Your task to perform on an android device: toggle wifi Image 0: 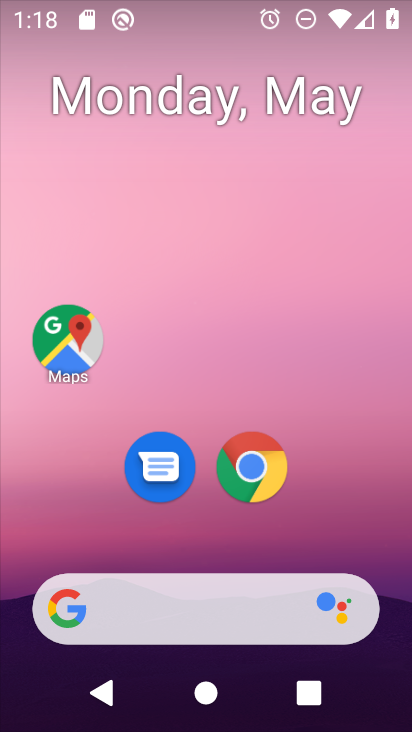
Step 0: drag from (375, 559) to (400, 3)
Your task to perform on an android device: toggle wifi Image 1: 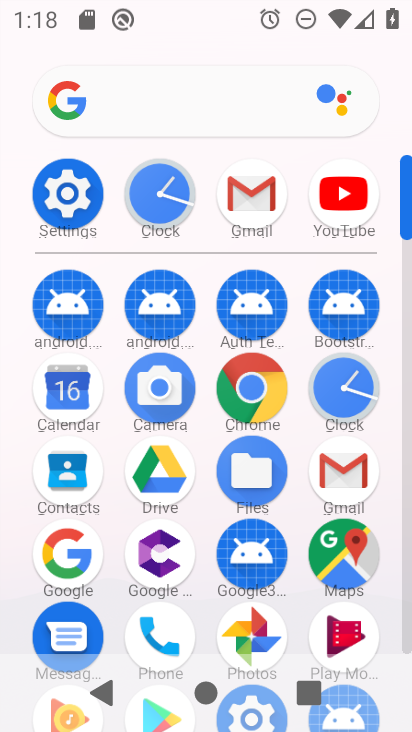
Step 1: click (60, 192)
Your task to perform on an android device: toggle wifi Image 2: 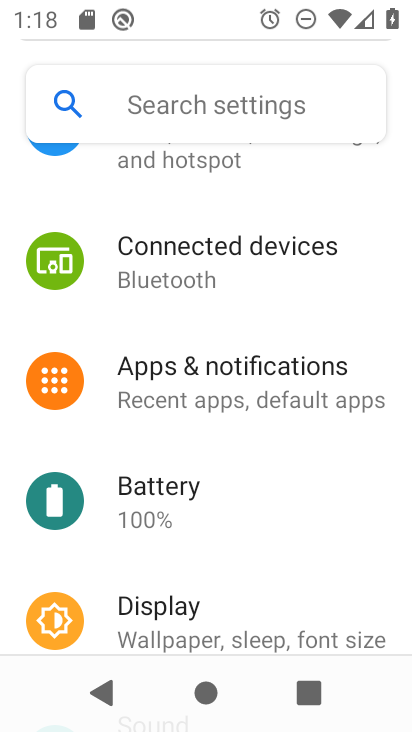
Step 2: drag from (336, 226) to (337, 566)
Your task to perform on an android device: toggle wifi Image 3: 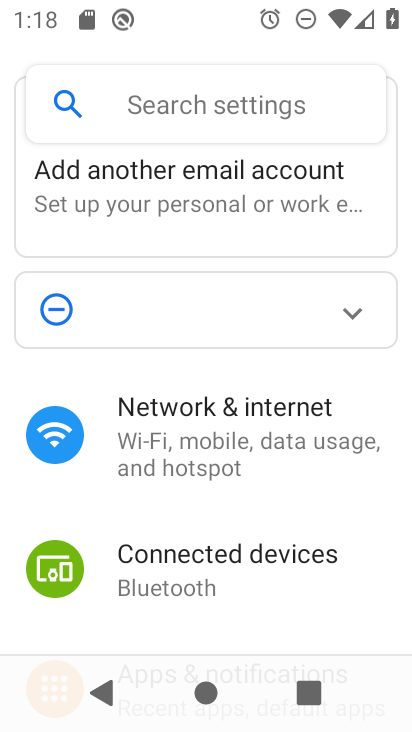
Step 3: click (202, 435)
Your task to perform on an android device: toggle wifi Image 4: 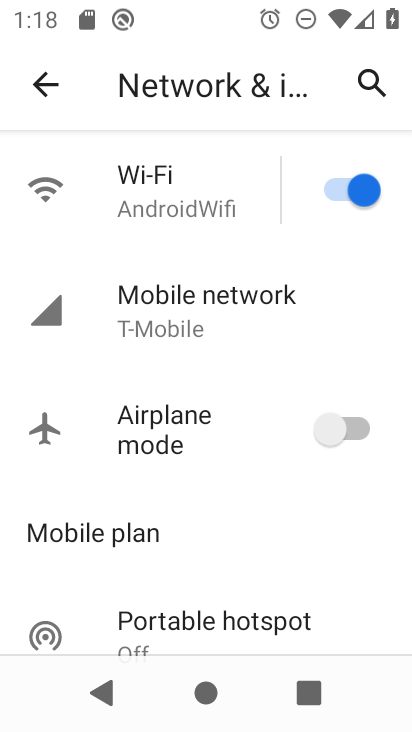
Step 4: click (368, 196)
Your task to perform on an android device: toggle wifi Image 5: 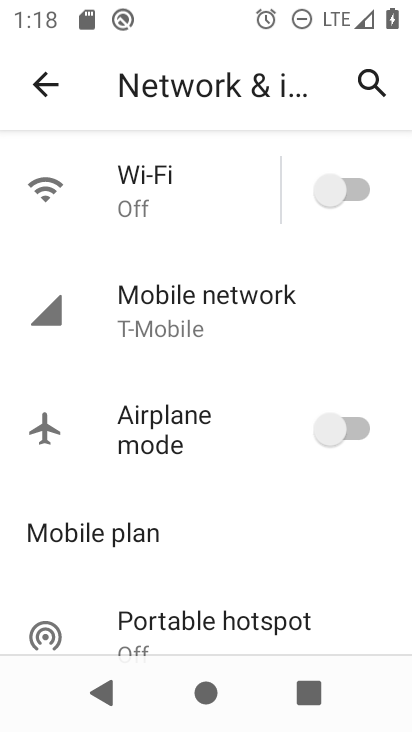
Step 5: task complete